Your task to perform on an android device: Go to Amazon Image 0: 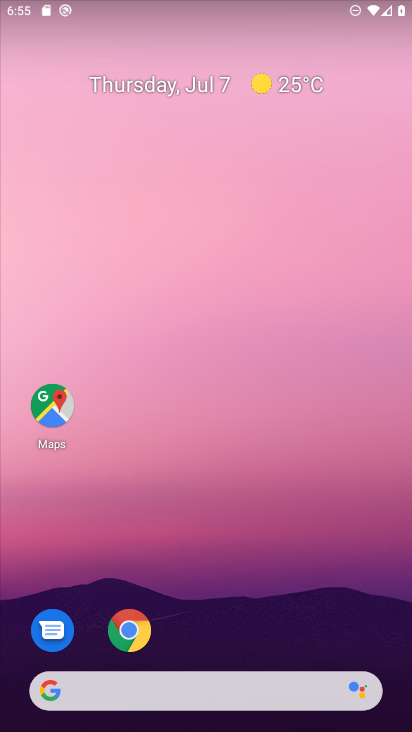
Step 0: click (131, 630)
Your task to perform on an android device: Go to Amazon Image 1: 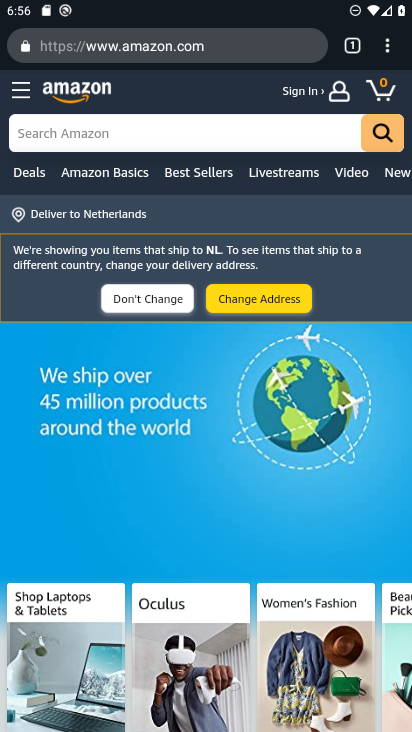
Step 1: task complete